Your task to perform on an android device: turn on data saver in the chrome app Image 0: 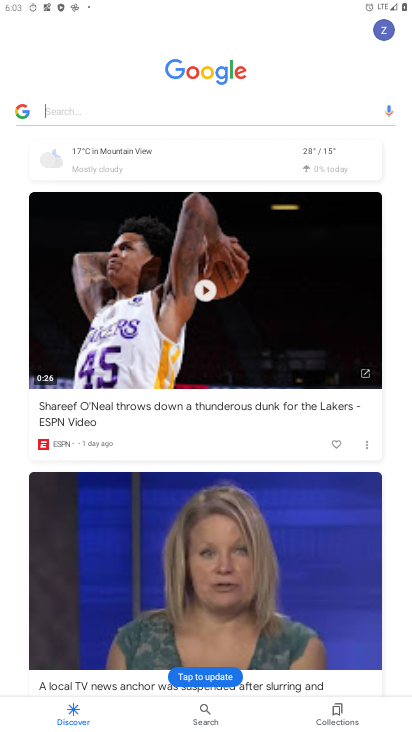
Step 0: click (139, 669)
Your task to perform on an android device: turn on data saver in the chrome app Image 1: 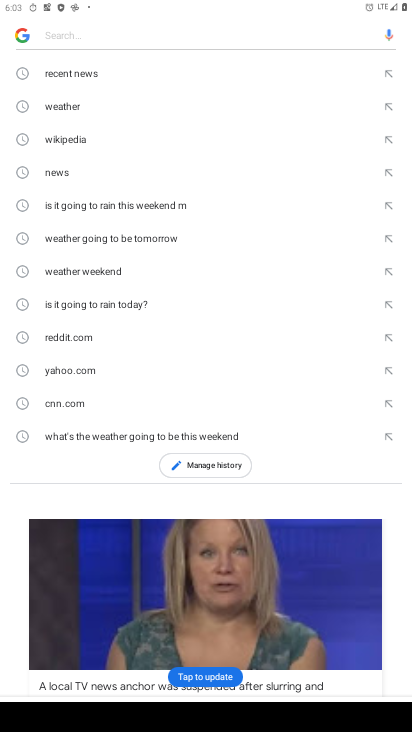
Step 1: press home button
Your task to perform on an android device: turn on data saver in the chrome app Image 2: 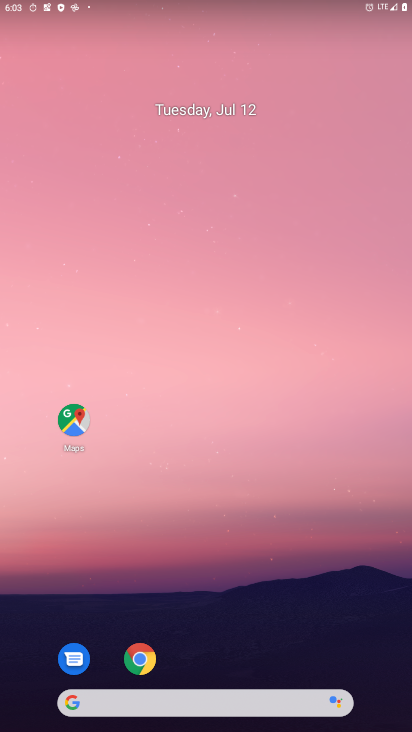
Step 2: click (144, 658)
Your task to perform on an android device: turn on data saver in the chrome app Image 3: 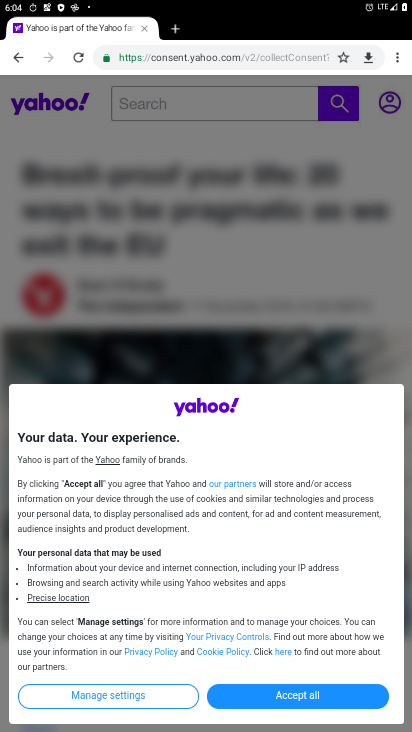
Step 3: click (399, 63)
Your task to perform on an android device: turn on data saver in the chrome app Image 4: 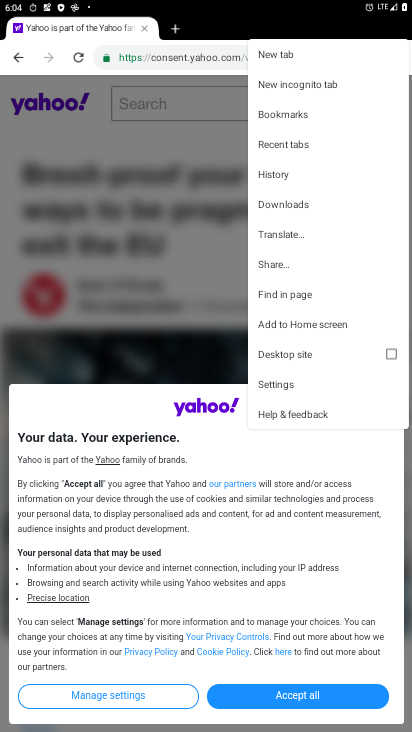
Step 4: click (69, 56)
Your task to perform on an android device: turn on data saver in the chrome app Image 5: 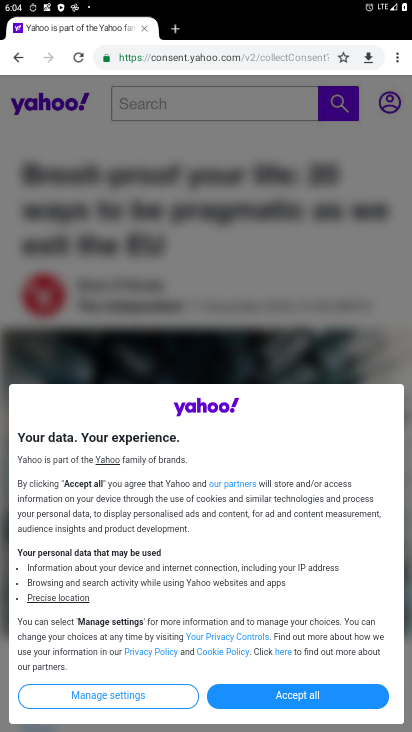
Step 5: click (73, 56)
Your task to perform on an android device: turn on data saver in the chrome app Image 6: 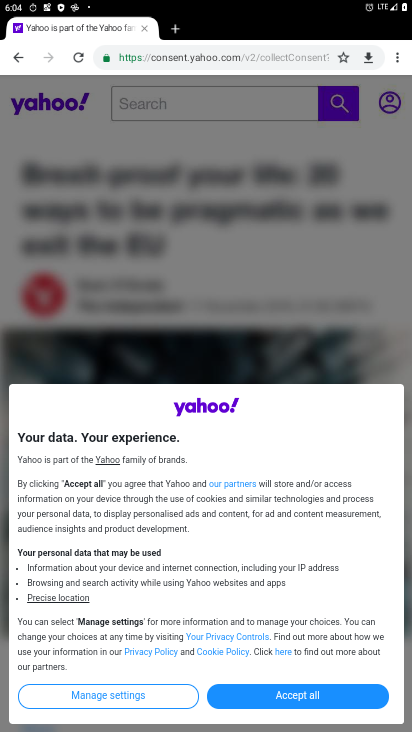
Step 6: task complete